Your task to perform on an android device: Go to Amazon Image 0: 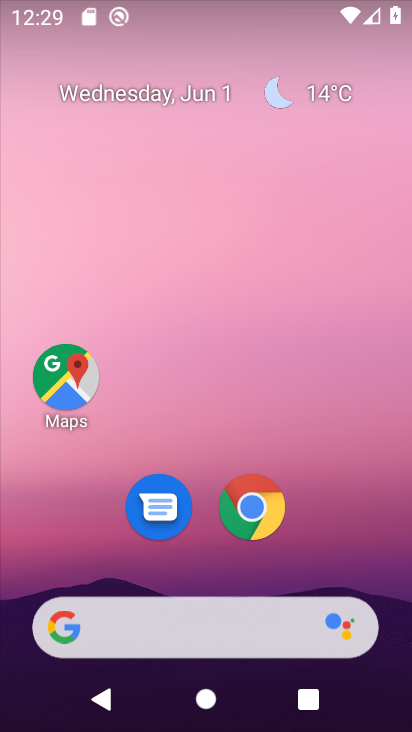
Step 0: click (268, 538)
Your task to perform on an android device: Go to Amazon Image 1: 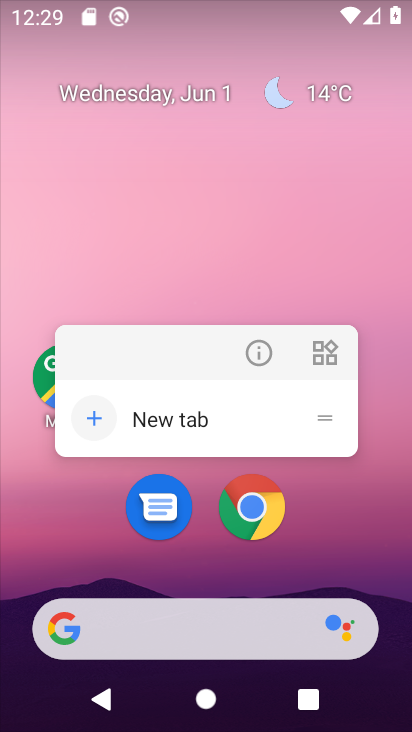
Step 1: click (262, 536)
Your task to perform on an android device: Go to Amazon Image 2: 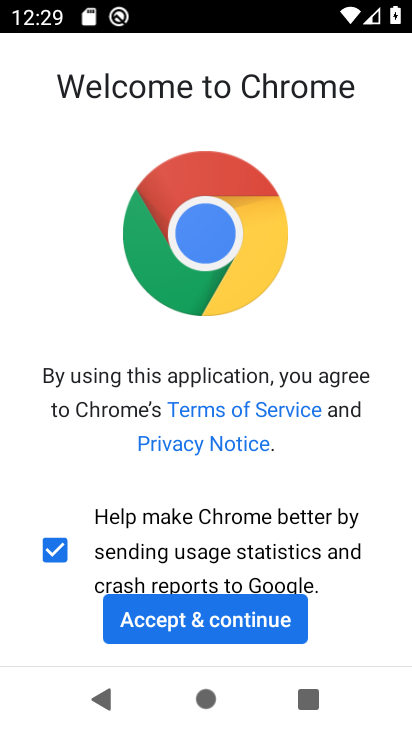
Step 2: click (264, 639)
Your task to perform on an android device: Go to Amazon Image 3: 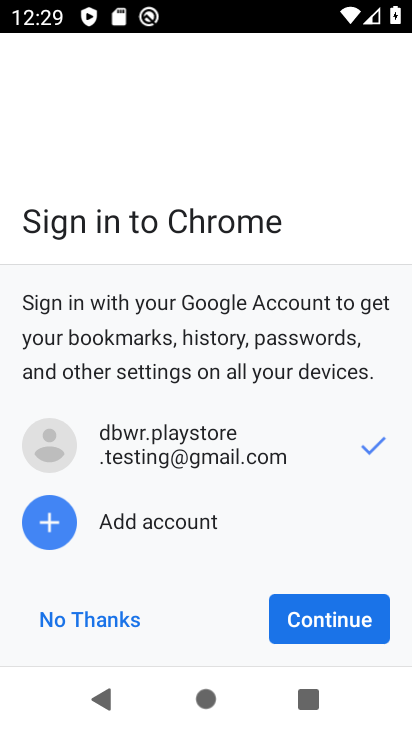
Step 3: click (324, 625)
Your task to perform on an android device: Go to Amazon Image 4: 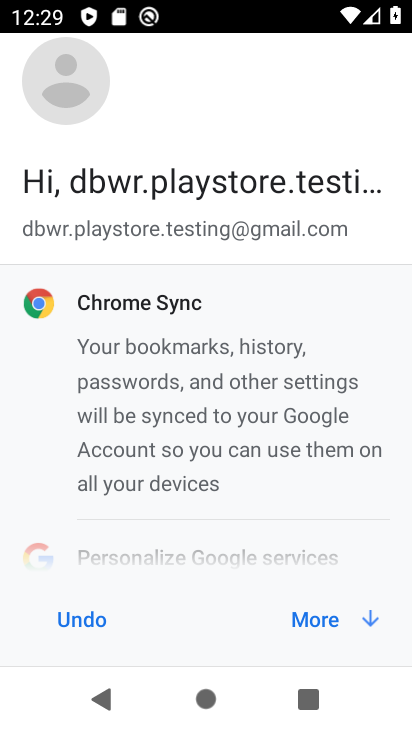
Step 4: click (324, 625)
Your task to perform on an android device: Go to Amazon Image 5: 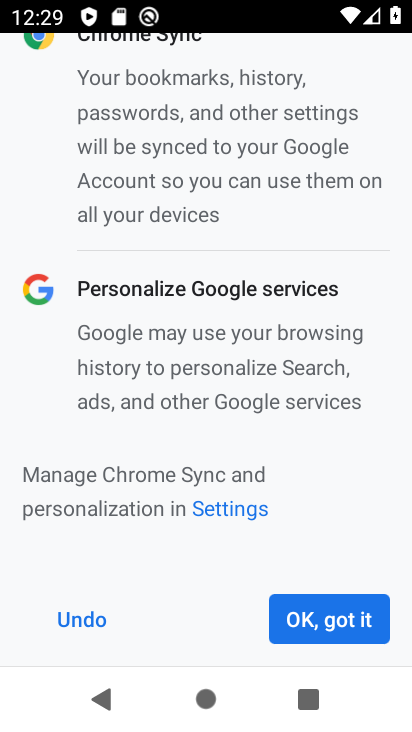
Step 5: click (327, 625)
Your task to perform on an android device: Go to Amazon Image 6: 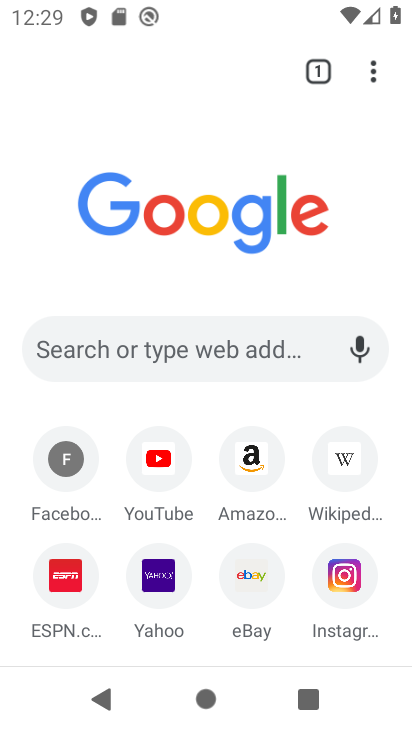
Step 6: click (238, 465)
Your task to perform on an android device: Go to Amazon Image 7: 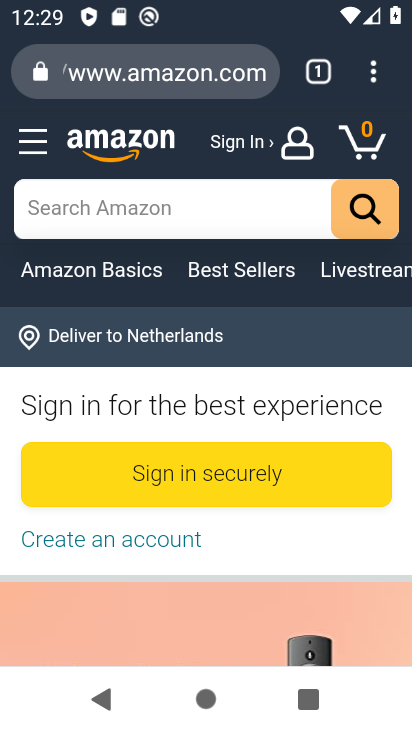
Step 7: task complete